Your task to perform on an android device: stop showing notifications on the lock screen Image 0: 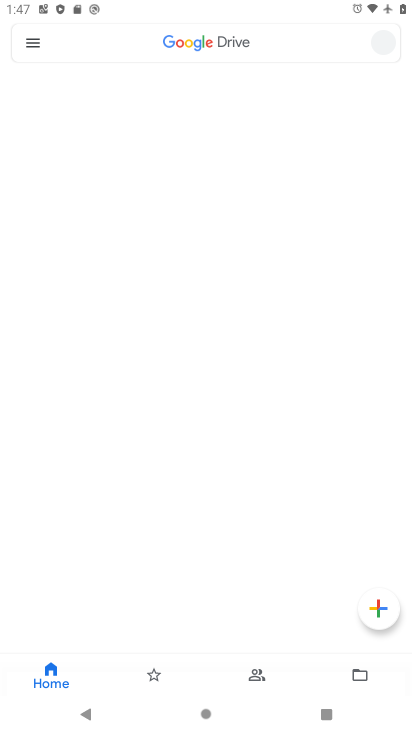
Step 0: press home button
Your task to perform on an android device: stop showing notifications on the lock screen Image 1: 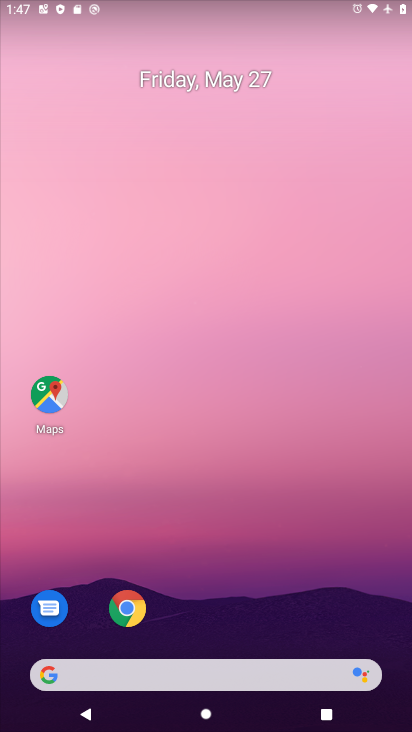
Step 1: drag from (111, 678) to (251, 176)
Your task to perform on an android device: stop showing notifications on the lock screen Image 2: 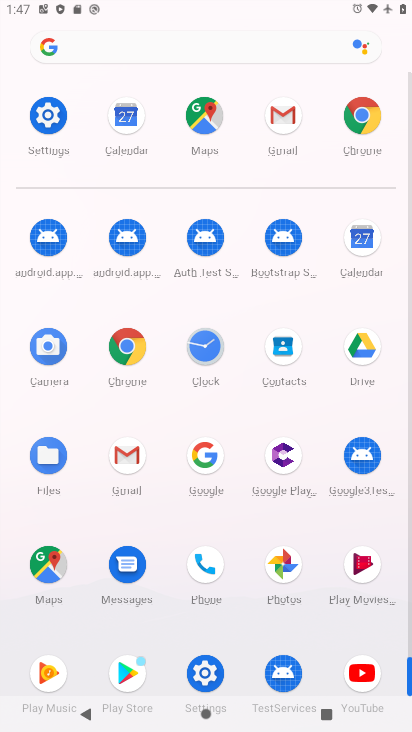
Step 2: click (54, 122)
Your task to perform on an android device: stop showing notifications on the lock screen Image 3: 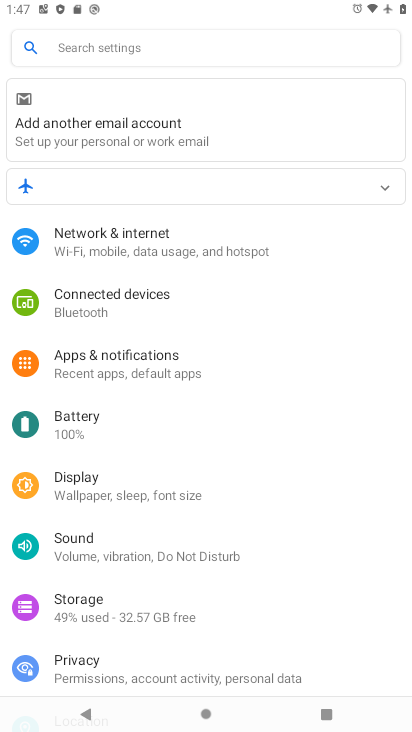
Step 3: click (136, 364)
Your task to perform on an android device: stop showing notifications on the lock screen Image 4: 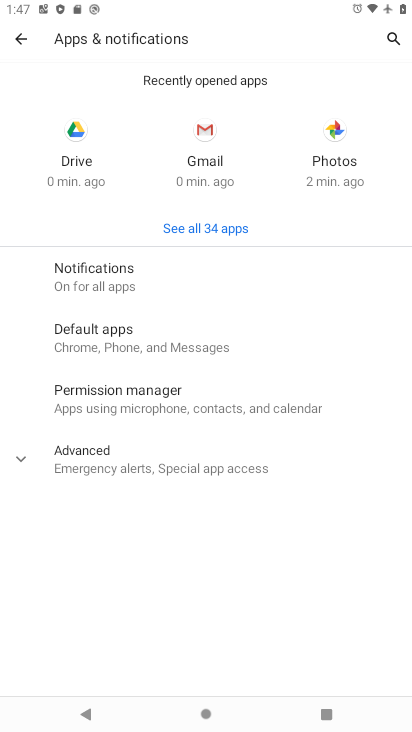
Step 4: click (94, 273)
Your task to perform on an android device: stop showing notifications on the lock screen Image 5: 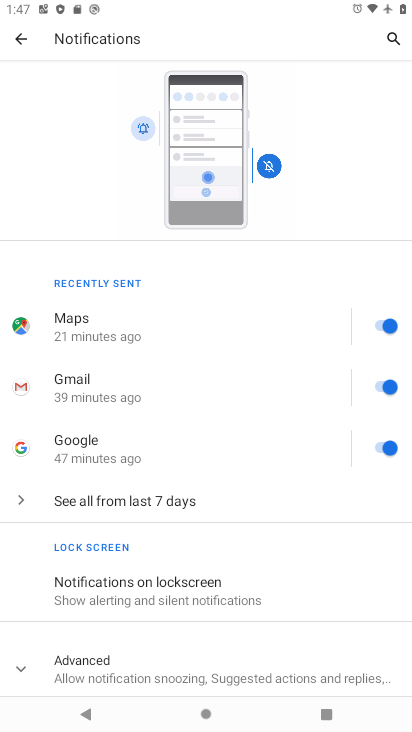
Step 5: click (145, 587)
Your task to perform on an android device: stop showing notifications on the lock screen Image 6: 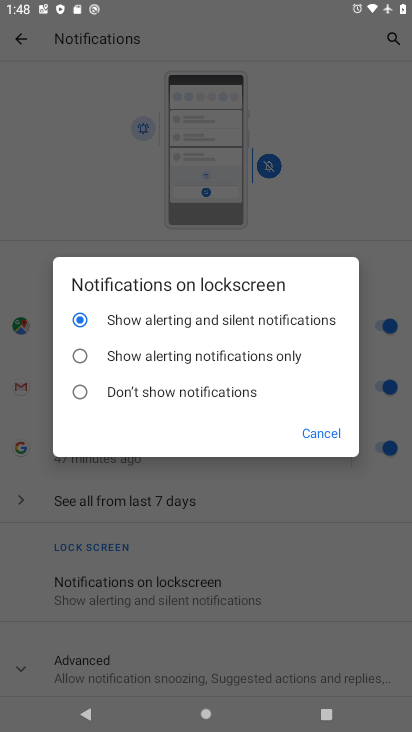
Step 6: click (84, 393)
Your task to perform on an android device: stop showing notifications on the lock screen Image 7: 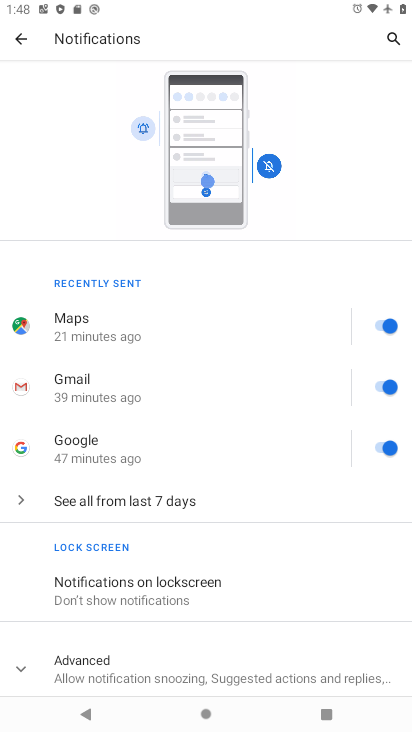
Step 7: task complete